Your task to perform on an android device: Search for vegetarian restaurants on Maps Image 0: 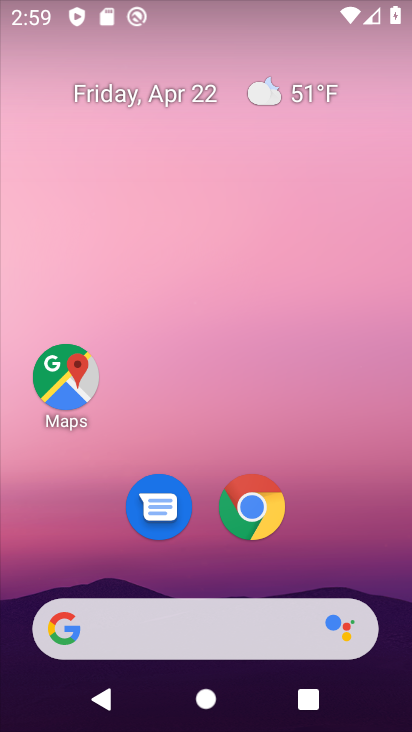
Step 0: click (65, 382)
Your task to perform on an android device: Search for vegetarian restaurants on Maps Image 1: 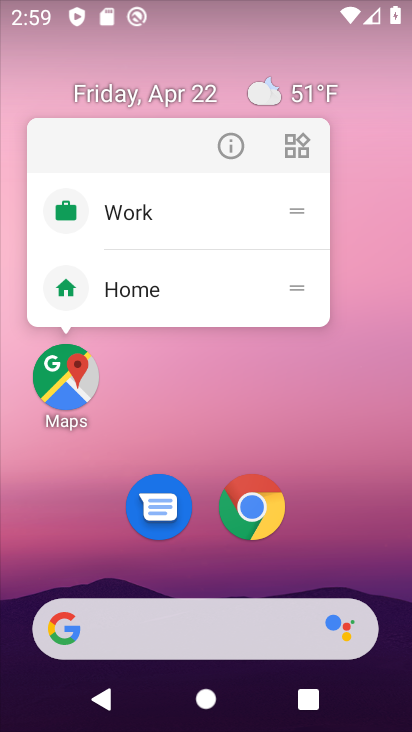
Step 1: click (71, 373)
Your task to perform on an android device: Search for vegetarian restaurants on Maps Image 2: 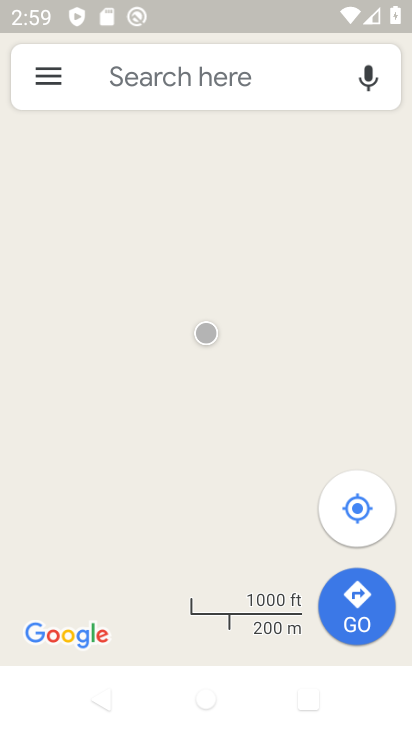
Step 2: click (175, 86)
Your task to perform on an android device: Search for vegetarian restaurants on Maps Image 3: 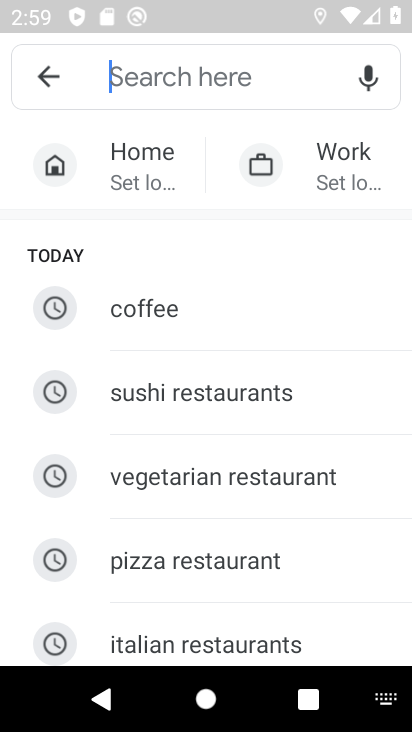
Step 3: type "vege"
Your task to perform on an android device: Search for vegetarian restaurants on Maps Image 4: 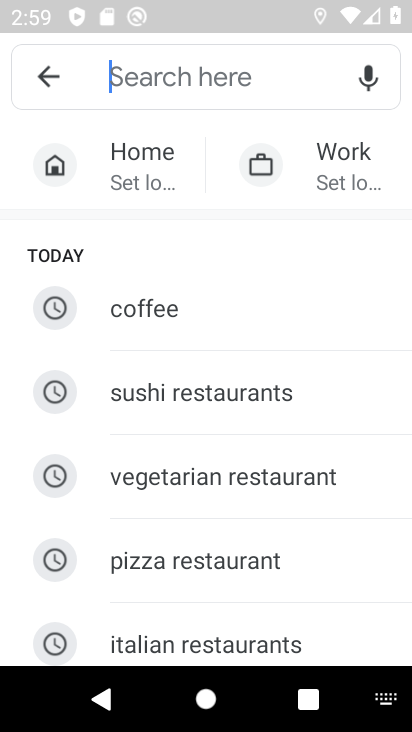
Step 4: click (331, 464)
Your task to perform on an android device: Search for vegetarian restaurants on Maps Image 5: 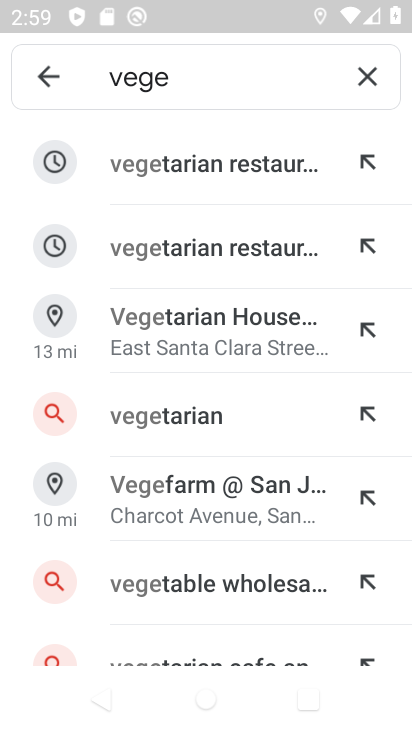
Step 5: click (176, 161)
Your task to perform on an android device: Search for vegetarian restaurants on Maps Image 6: 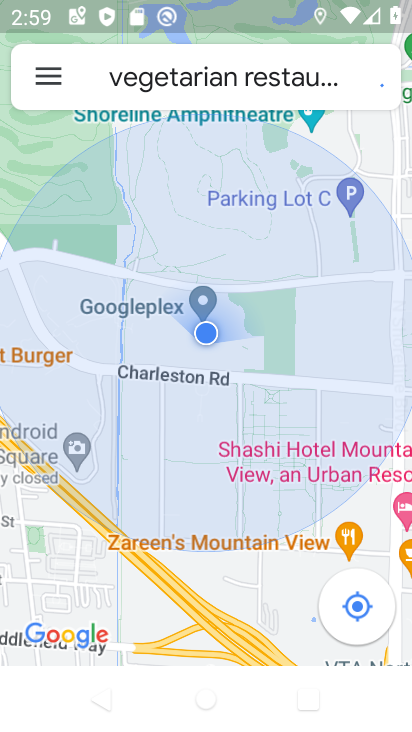
Step 6: task complete